Your task to perform on an android device: Open calendar and show me the fourth week of next month Image 0: 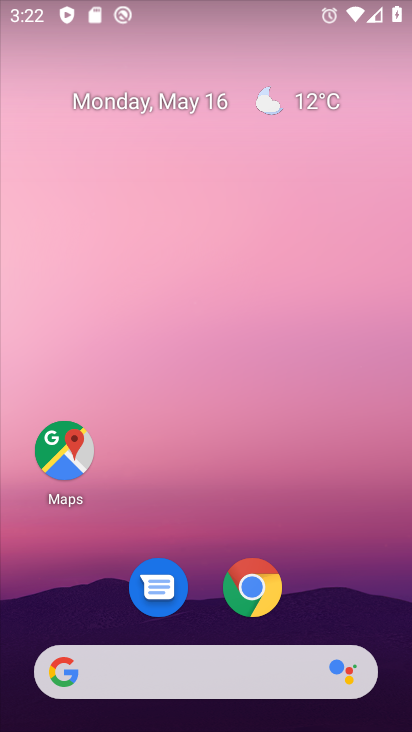
Step 0: drag from (393, 622) to (375, 247)
Your task to perform on an android device: Open calendar and show me the fourth week of next month Image 1: 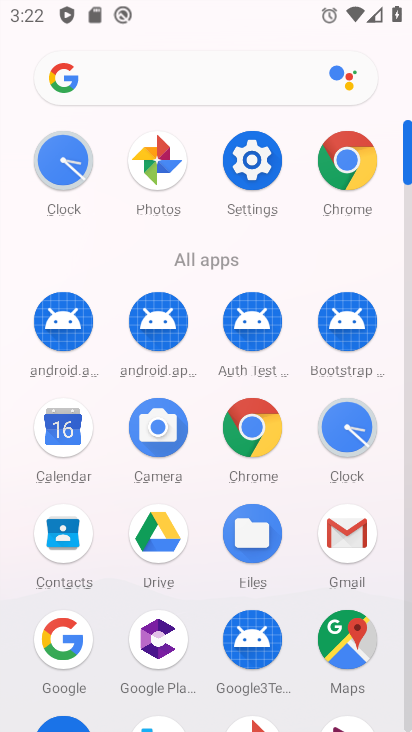
Step 1: click (71, 434)
Your task to perform on an android device: Open calendar and show me the fourth week of next month Image 2: 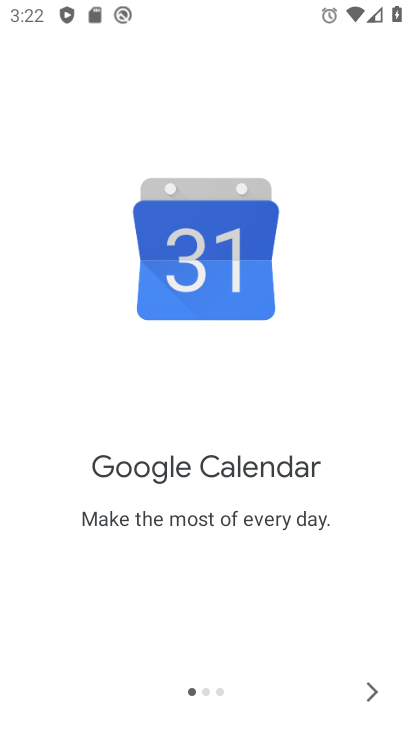
Step 2: click (366, 692)
Your task to perform on an android device: Open calendar and show me the fourth week of next month Image 3: 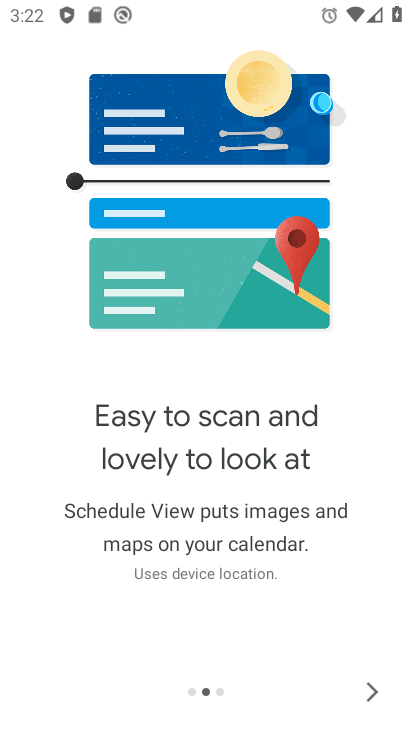
Step 3: click (366, 692)
Your task to perform on an android device: Open calendar and show me the fourth week of next month Image 4: 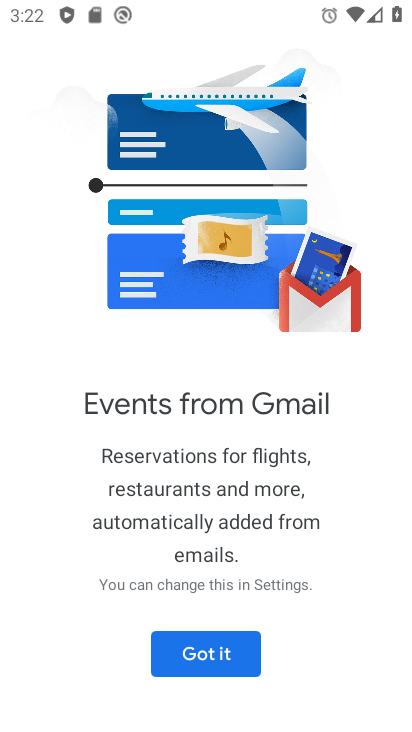
Step 4: click (171, 660)
Your task to perform on an android device: Open calendar and show me the fourth week of next month Image 5: 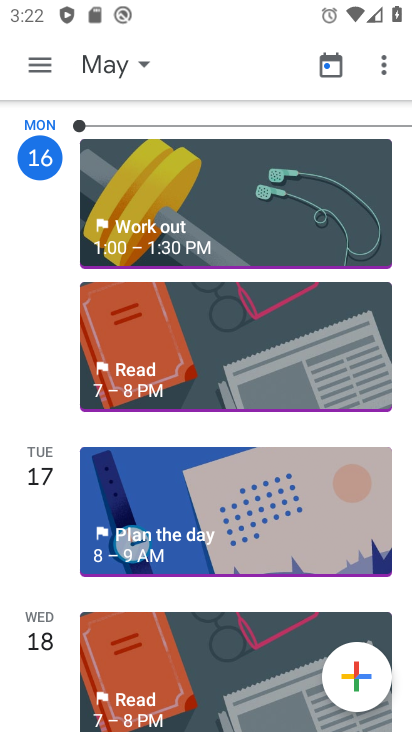
Step 5: click (379, 66)
Your task to perform on an android device: Open calendar and show me the fourth week of next month Image 6: 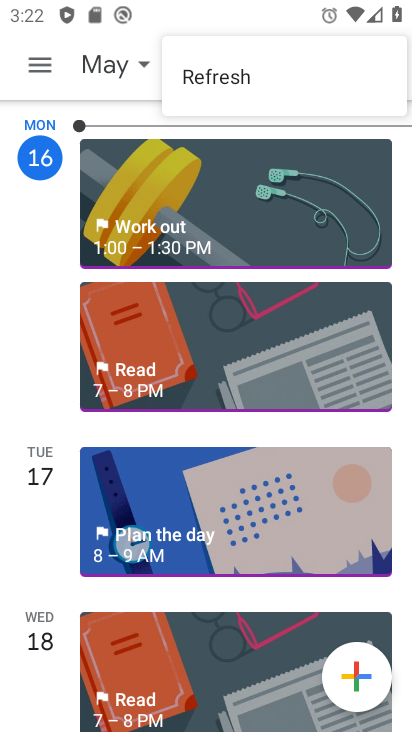
Step 6: click (122, 83)
Your task to perform on an android device: Open calendar and show me the fourth week of next month Image 7: 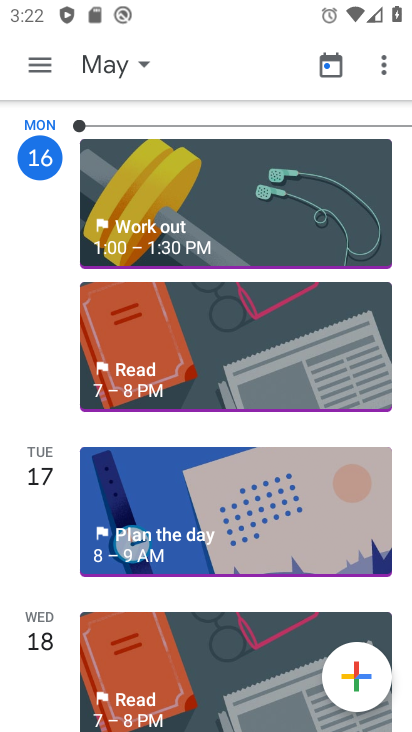
Step 7: click (138, 66)
Your task to perform on an android device: Open calendar and show me the fourth week of next month Image 8: 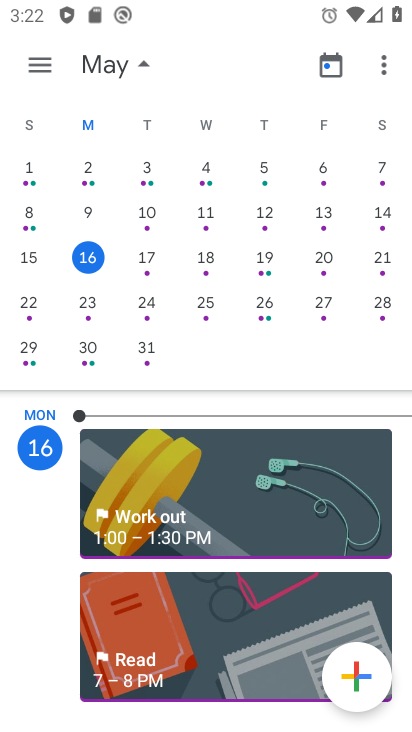
Step 8: drag from (403, 224) to (53, 213)
Your task to perform on an android device: Open calendar and show me the fourth week of next month Image 9: 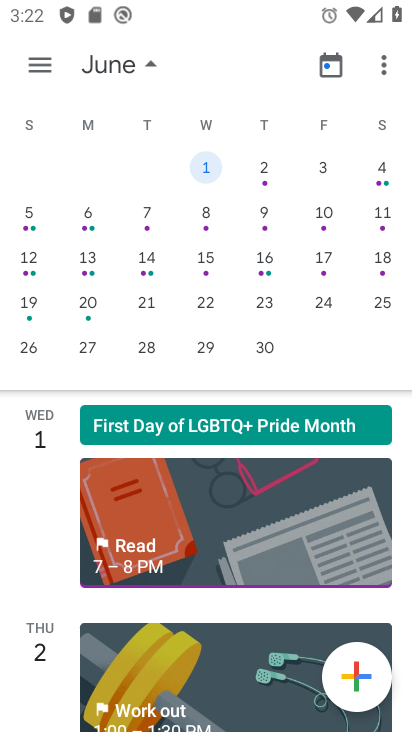
Step 9: click (260, 294)
Your task to perform on an android device: Open calendar and show me the fourth week of next month Image 10: 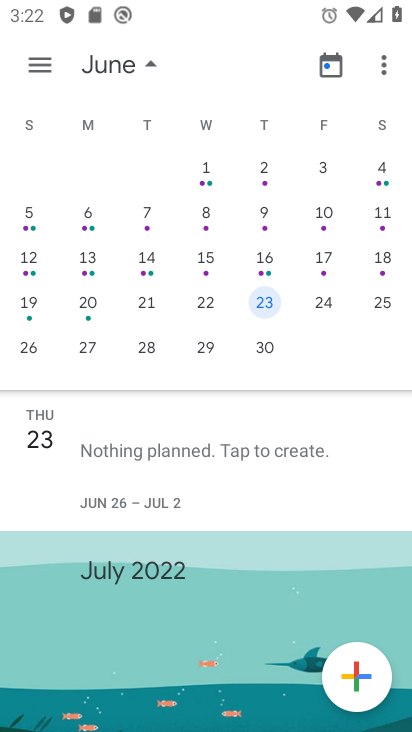
Step 10: task complete